Your task to perform on an android device: Add rayovac triple a to the cart on costco.com Image 0: 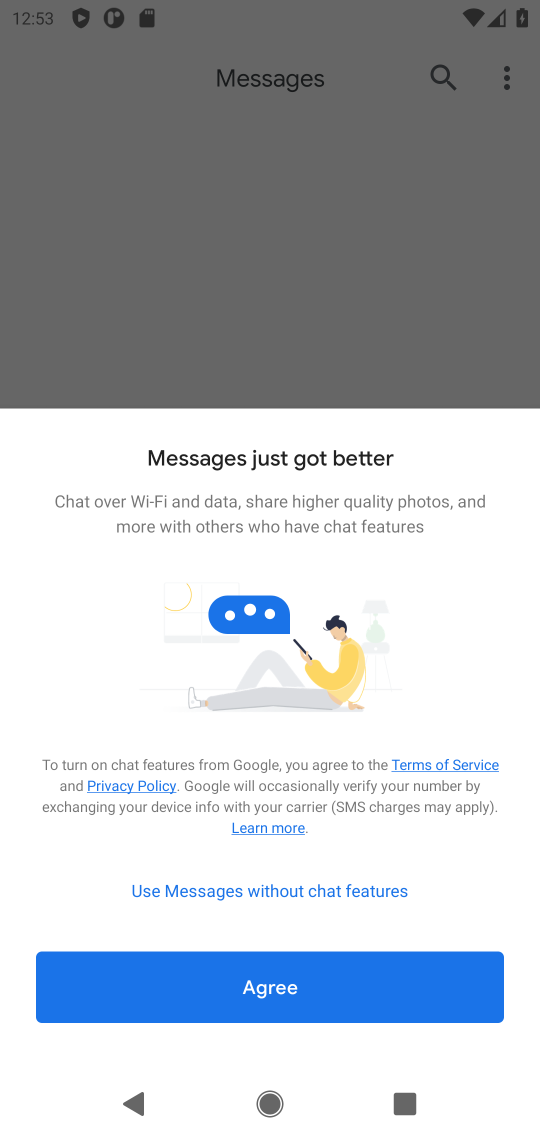
Step 0: press home button
Your task to perform on an android device: Add rayovac triple a to the cart on costco.com Image 1: 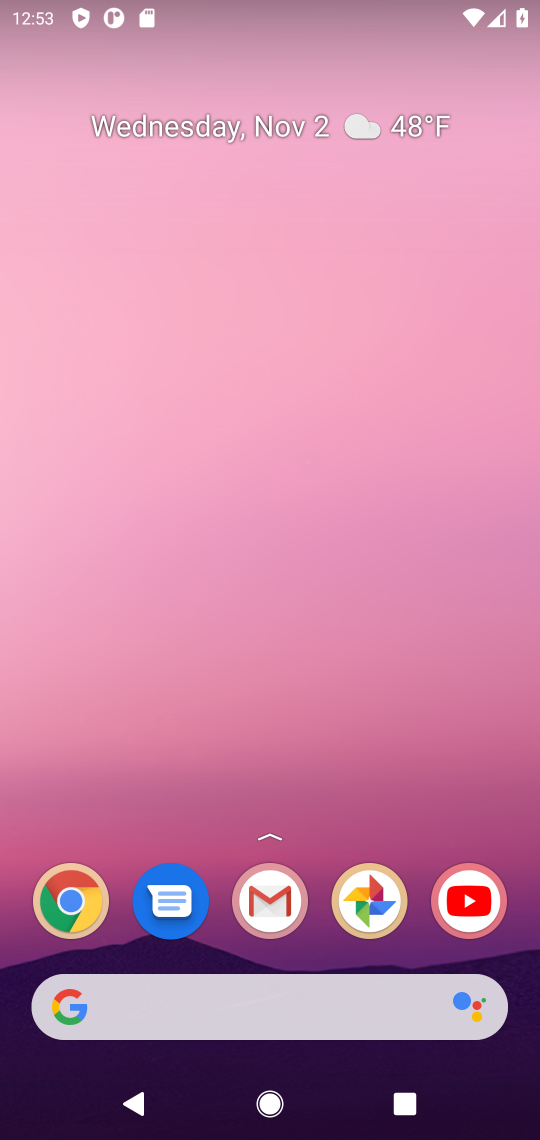
Step 1: drag from (331, 964) to (279, 221)
Your task to perform on an android device: Add rayovac triple a to the cart on costco.com Image 2: 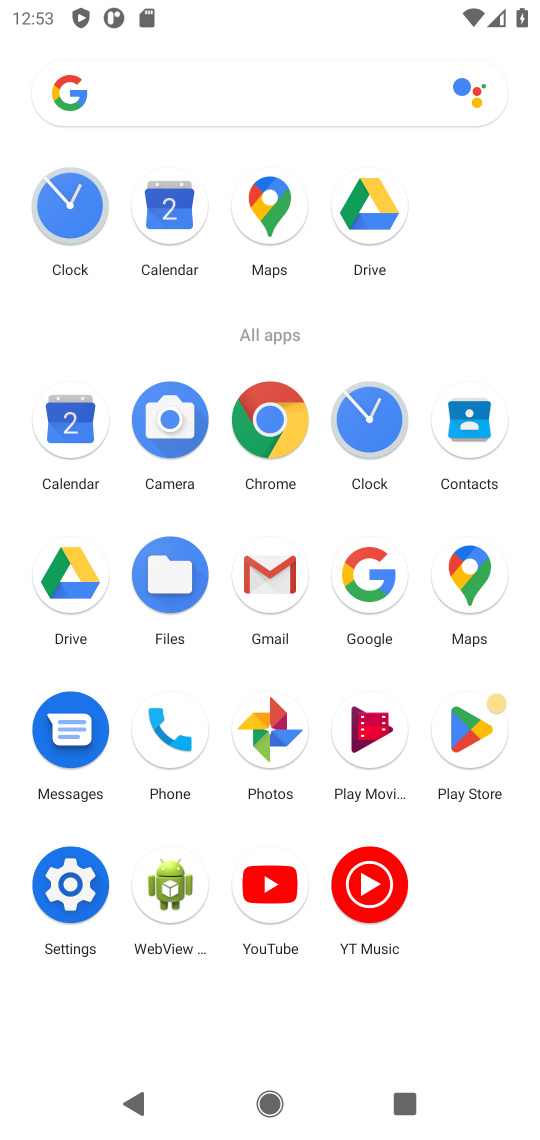
Step 2: click (266, 429)
Your task to perform on an android device: Add rayovac triple a to the cart on costco.com Image 3: 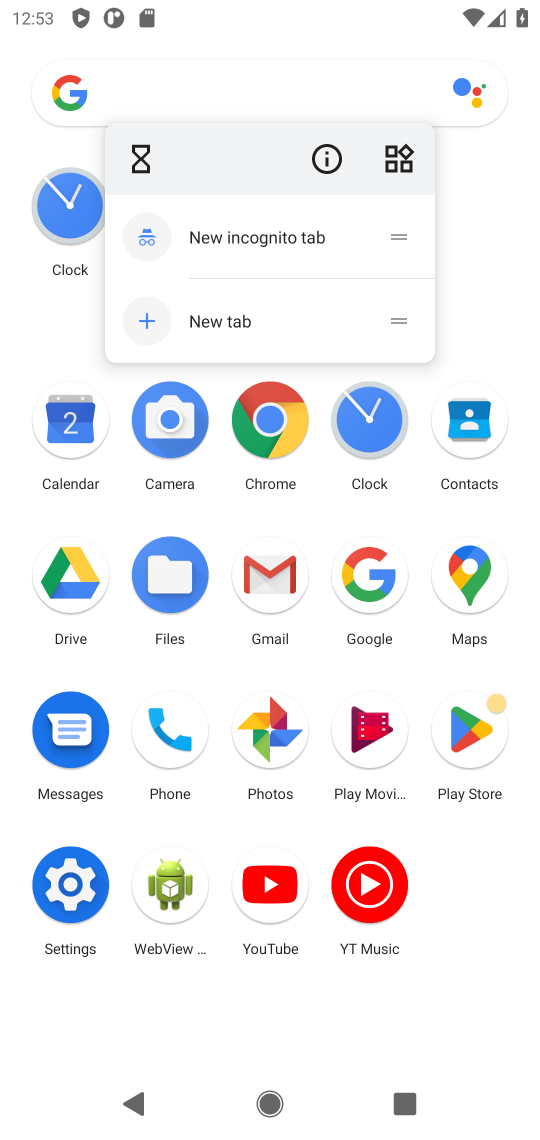
Step 3: click (273, 426)
Your task to perform on an android device: Add rayovac triple a to the cart on costco.com Image 4: 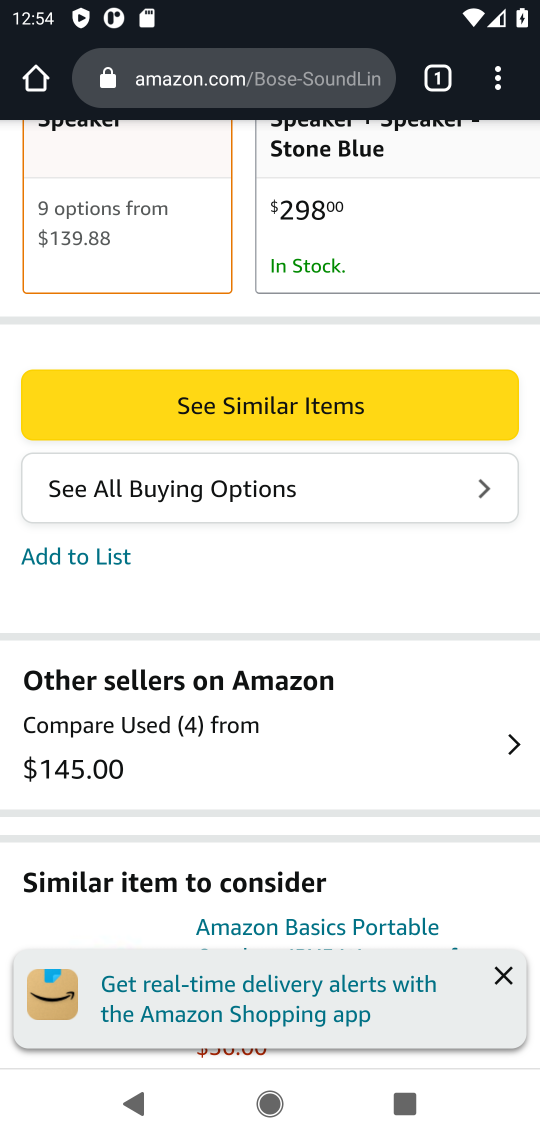
Step 4: drag from (252, 431) to (181, 801)
Your task to perform on an android device: Add rayovac triple a to the cart on costco.com Image 5: 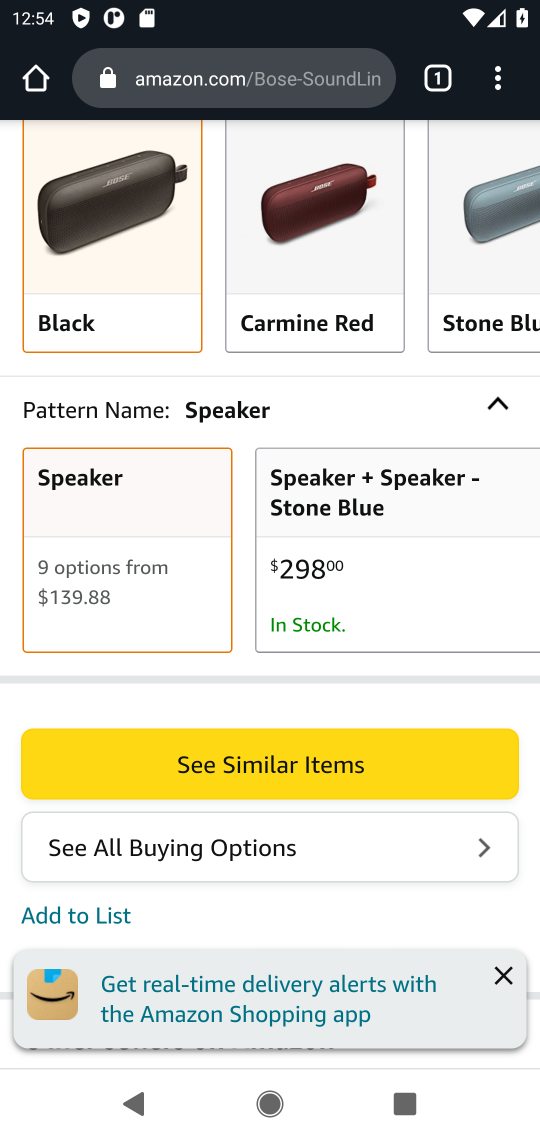
Step 5: click (214, 96)
Your task to perform on an android device: Add rayovac triple a to the cart on costco.com Image 6: 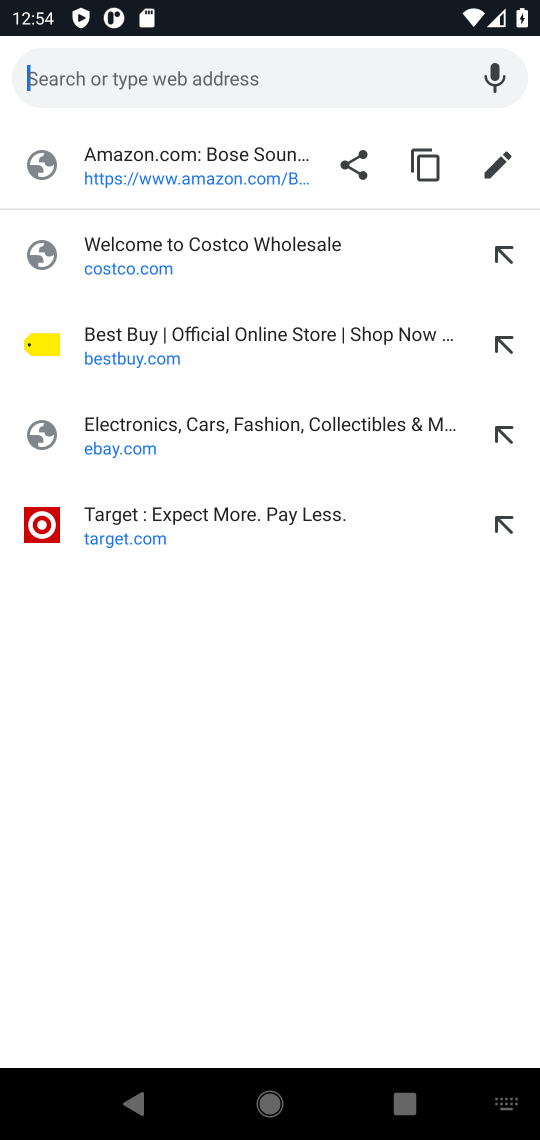
Step 6: type "costco.com"
Your task to perform on an android device: Add rayovac triple a to the cart on costco.com Image 7: 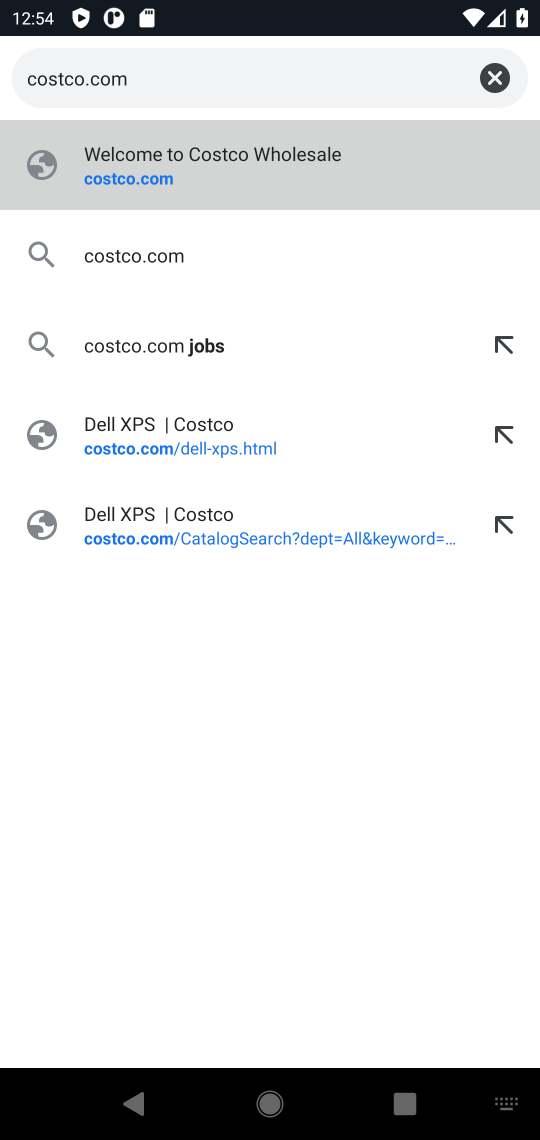
Step 7: press enter
Your task to perform on an android device: Add rayovac triple a to the cart on costco.com Image 8: 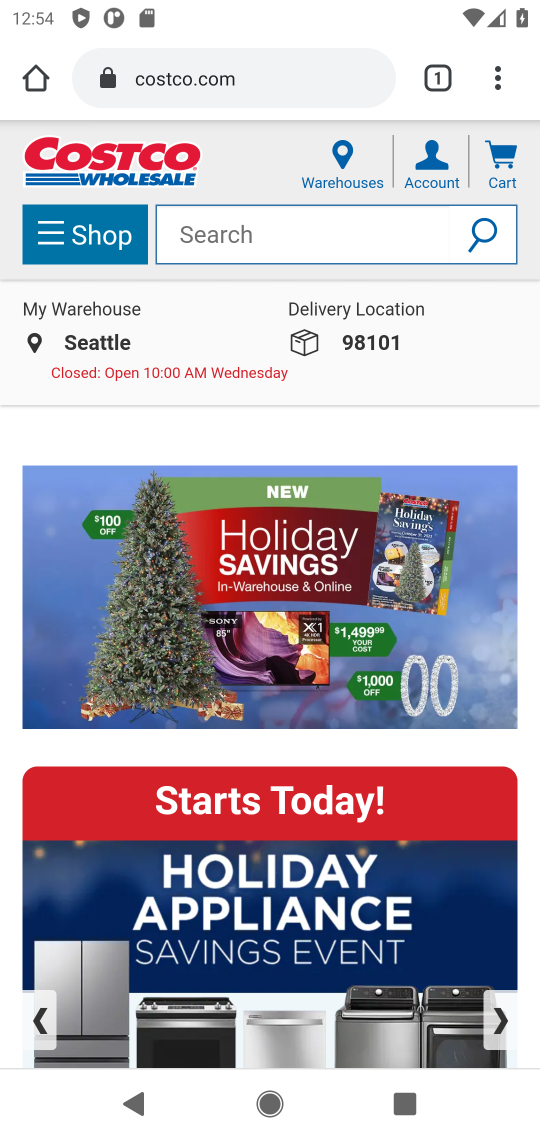
Step 8: click (355, 230)
Your task to perform on an android device: Add rayovac triple a to the cart on costco.com Image 9: 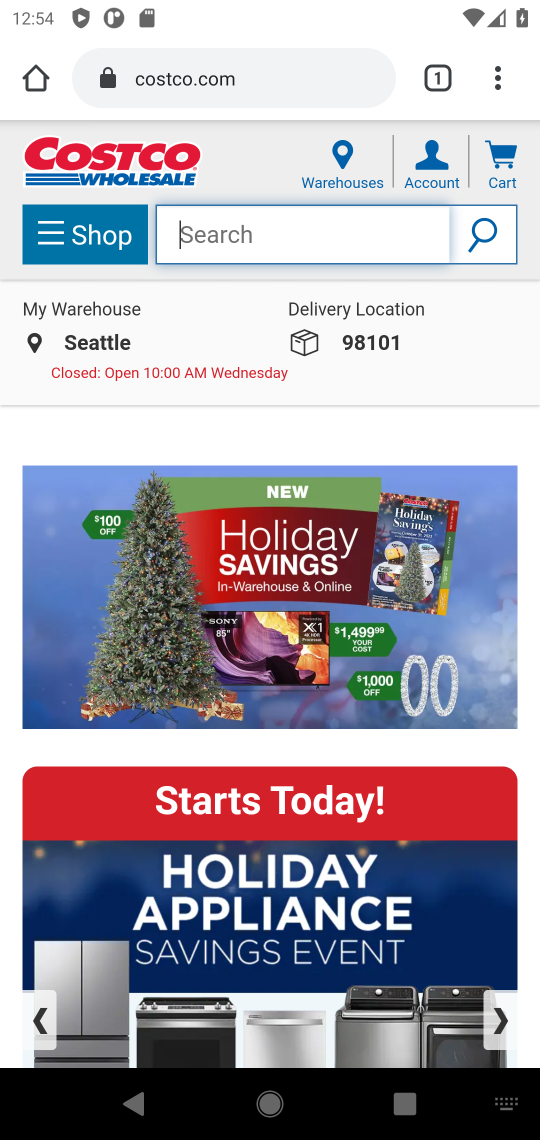
Step 9: type "rayovac triple a"
Your task to perform on an android device: Add rayovac triple a to the cart on costco.com Image 10: 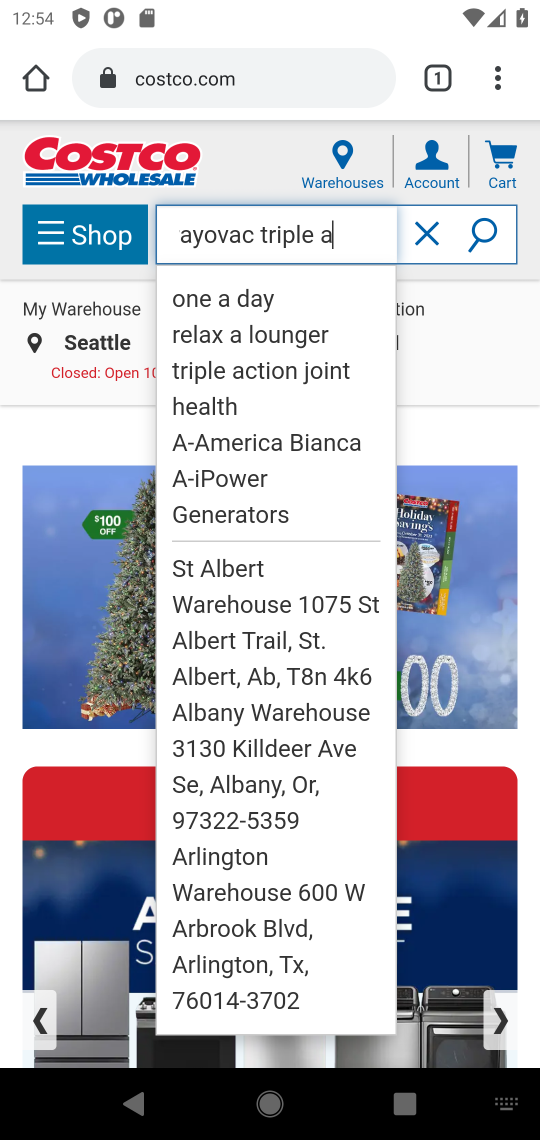
Step 10: press enter
Your task to perform on an android device: Add rayovac triple a to the cart on costco.com Image 11: 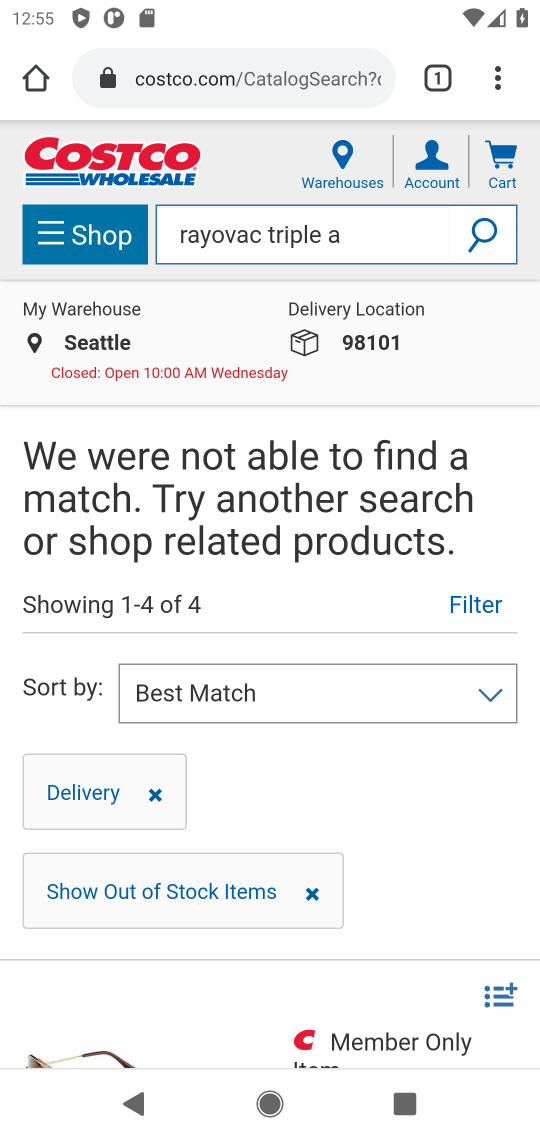
Step 11: task complete